Your task to perform on an android device: open app "Fetch Rewards" (install if not already installed), go to login, and select forgot password Image 0: 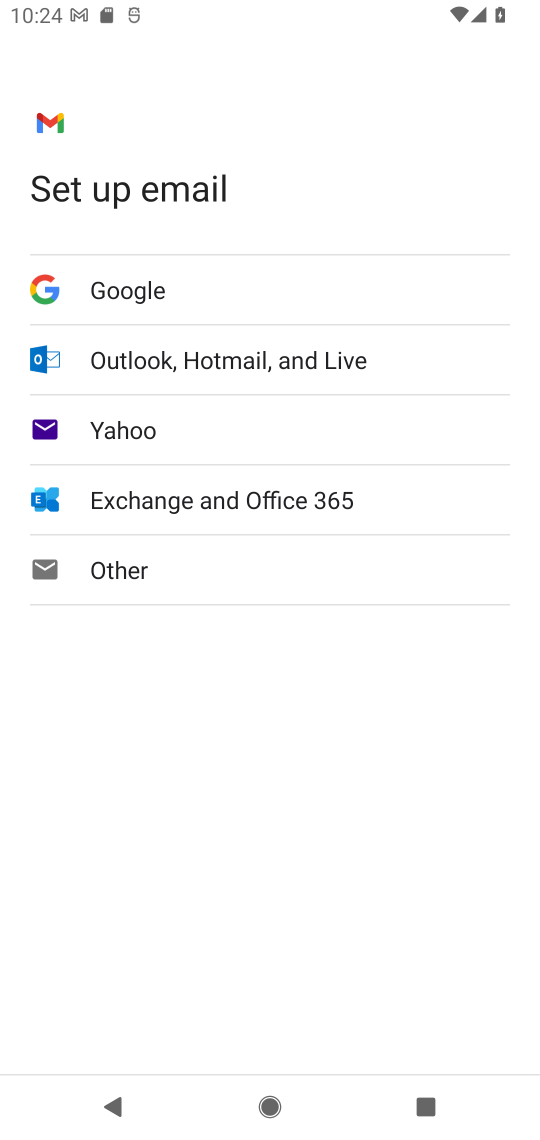
Step 0: press home button
Your task to perform on an android device: open app "Fetch Rewards" (install if not already installed), go to login, and select forgot password Image 1: 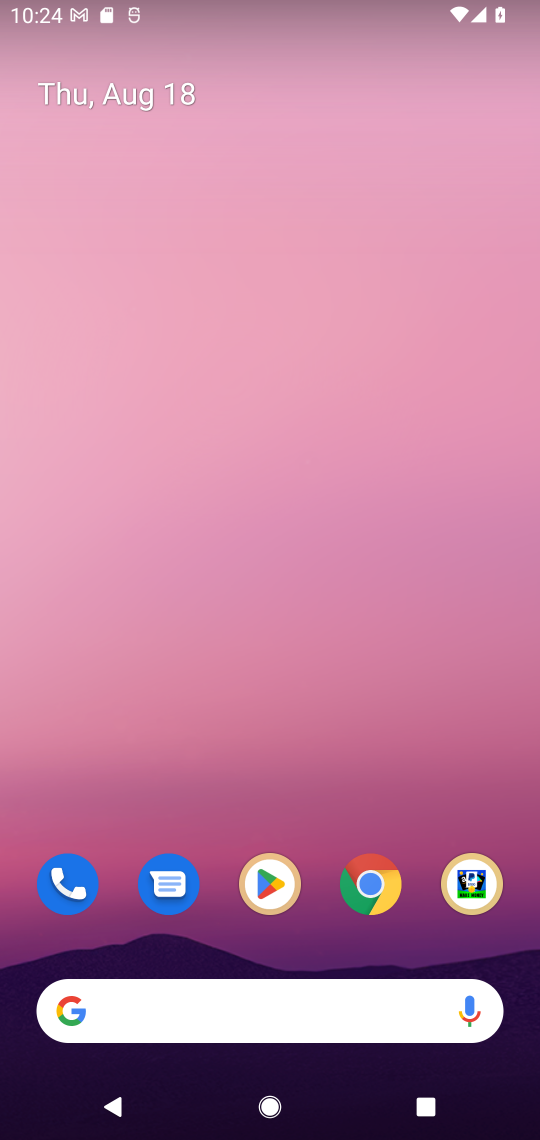
Step 1: drag from (236, 1028) to (291, 224)
Your task to perform on an android device: open app "Fetch Rewards" (install if not already installed), go to login, and select forgot password Image 2: 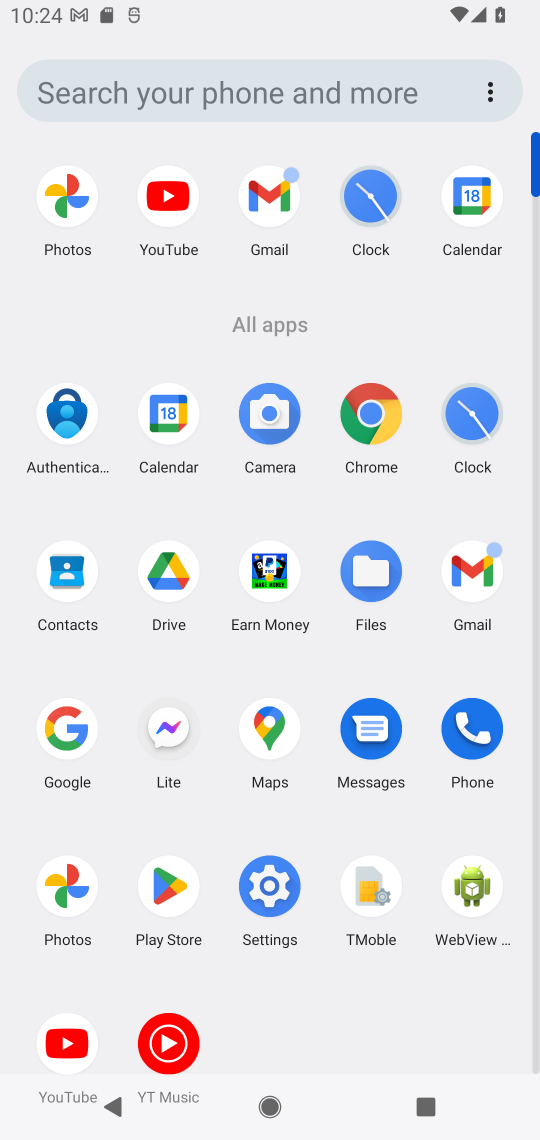
Step 2: click (274, 575)
Your task to perform on an android device: open app "Fetch Rewards" (install if not already installed), go to login, and select forgot password Image 3: 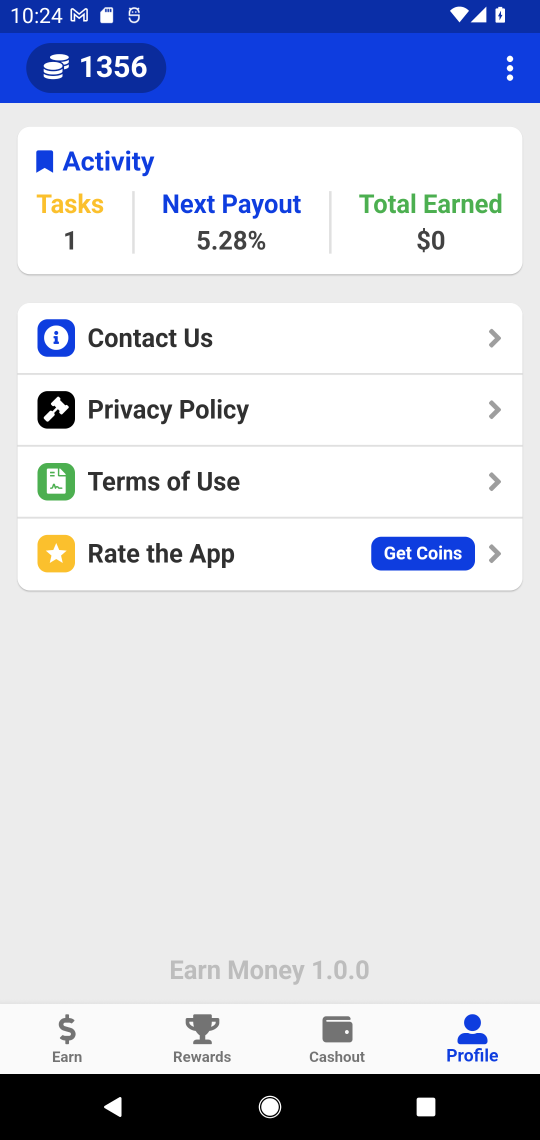
Step 3: click (68, 1044)
Your task to perform on an android device: open app "Fetch Rewards" (install if not already installed), go to login, and select forgot password Image 4: 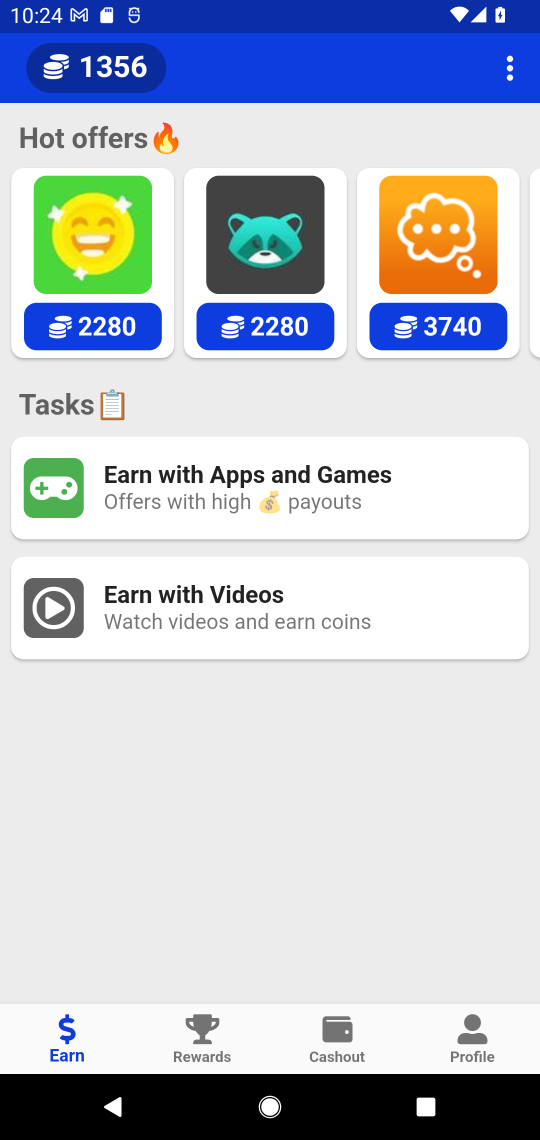
Step 4: click (195, 1038)
Your task to perform on an android device: open app "Fetch Rewards" (install if not already installed), go to login, and select forgot password Image 5: 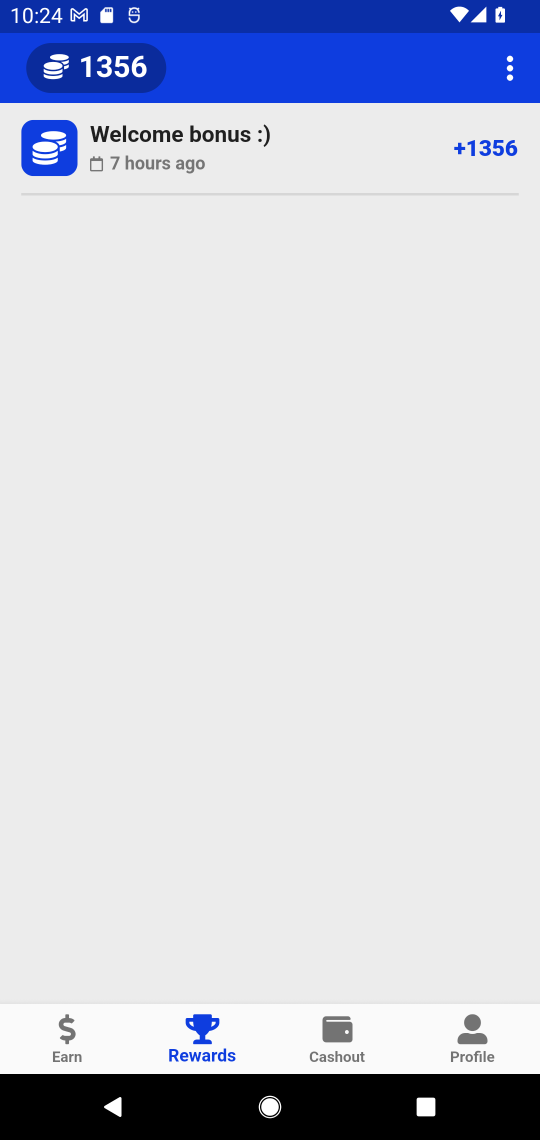
Step 5: click (327, 1036)
Your task to perform on an android device: open app "Fetch Rewards" (install if not already installed), go to login, and select forgot password Image 6: 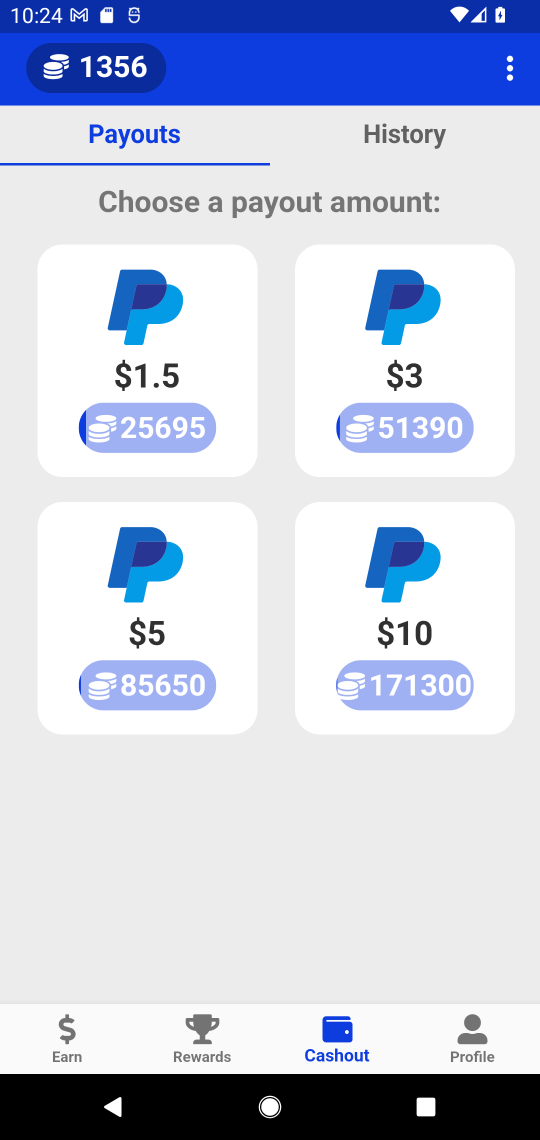
Step 6: task complete